Your task to perform on an android device: Open CNN.com Image 0: 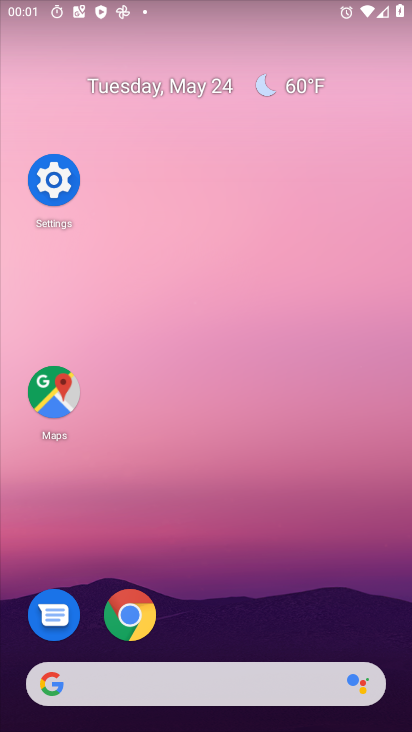
Step 0: drag from (218, 612) to (295, 89)
Your task to perform on an android device: Open CNN.com Image 1: 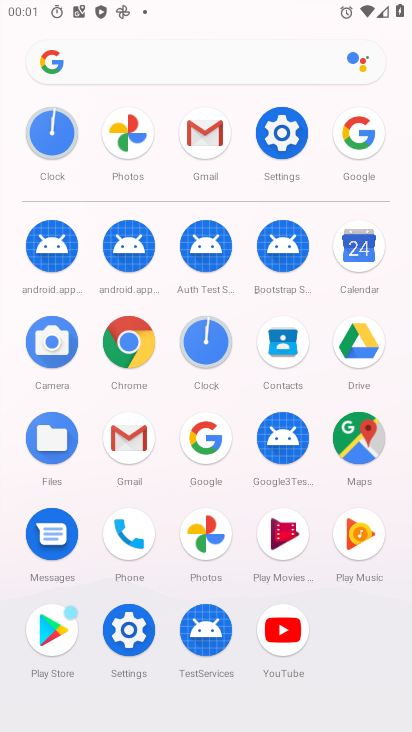
Step 1: click (205, 431)
Your task to perform on an android device: Open CNN.com Image 2: 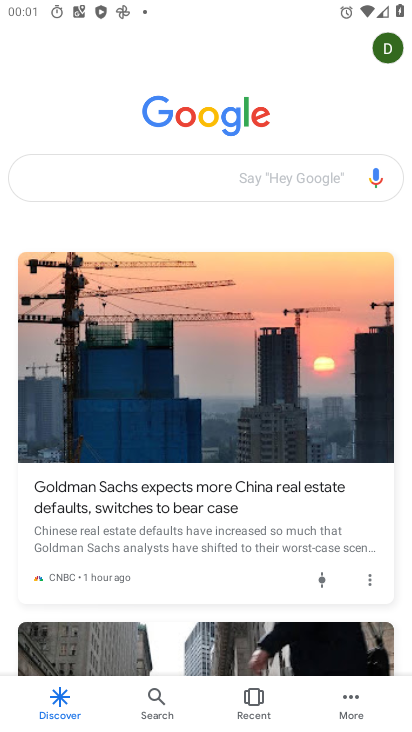
Step 2: click (178, 173)
Your task to perform on an android device: Open CNN.com Image 3: 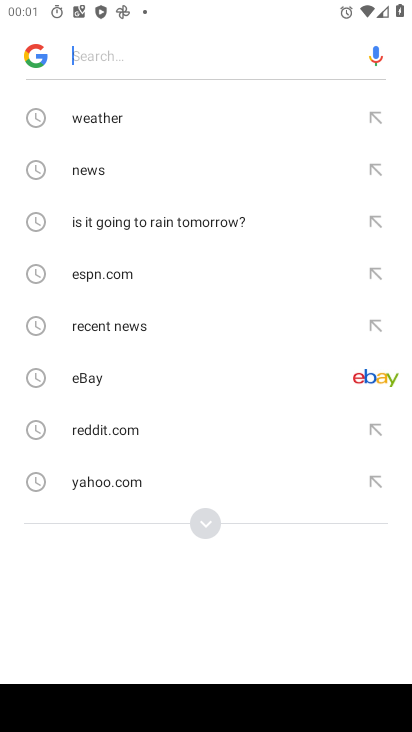
Step 3: type "cnn.com"
Your task to perform on an android device: Open CNN.com Image 4: 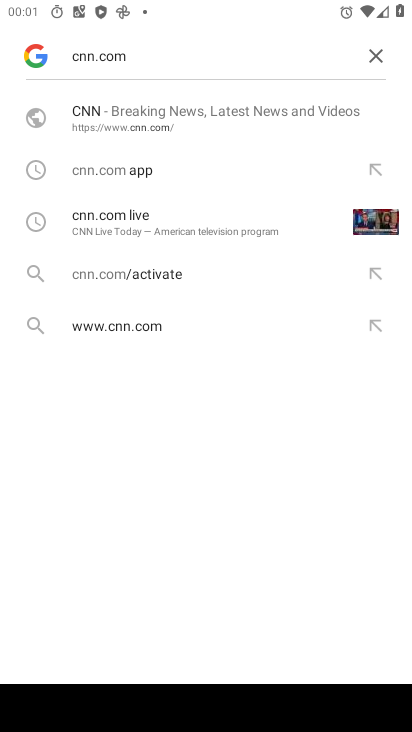
Step 4: click (168, 115)
Your task to perform on an android device: Open CNN.com Image 5: 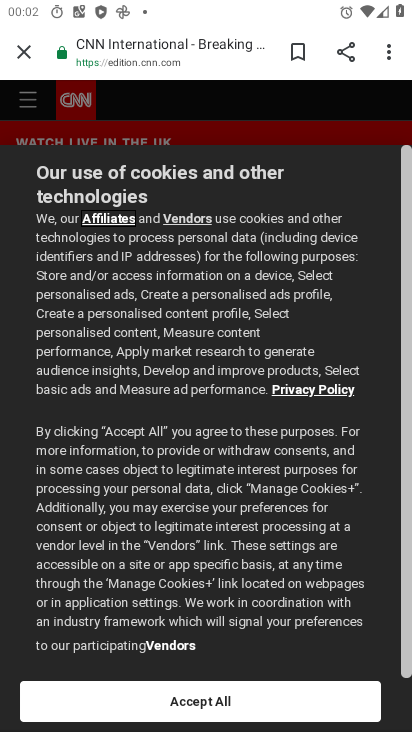
Step 5: task complete